Your task to perform on an android device: Open network settings Image 0: 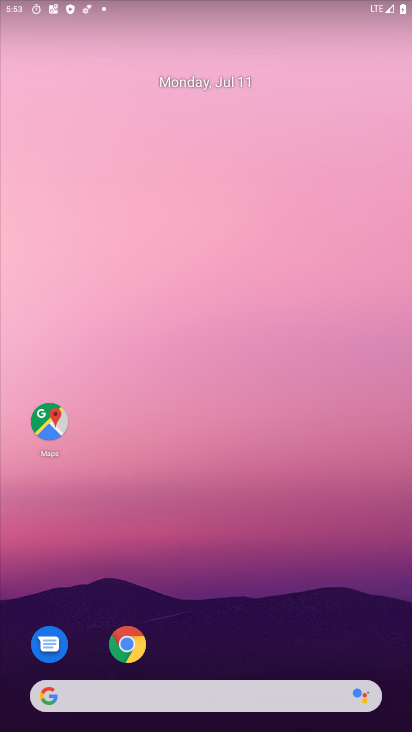
Step 0: drag from (219, 644) to (315, 1)
Your task to perform on an android device: Open network settings Image 1: 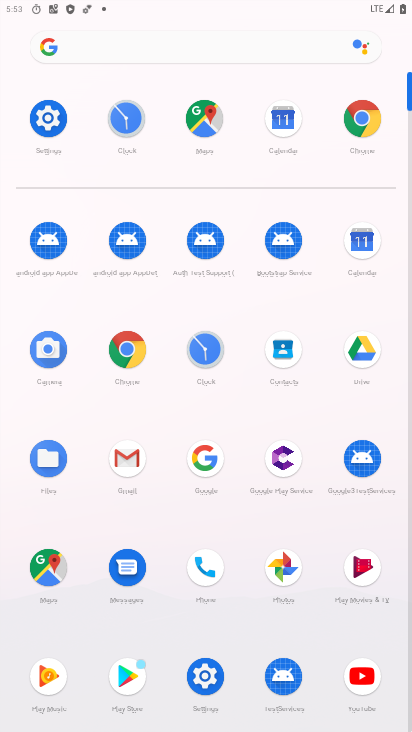
Step 1: click (41, 134)
Your task to perform on an android device: Open network settings Image 2: 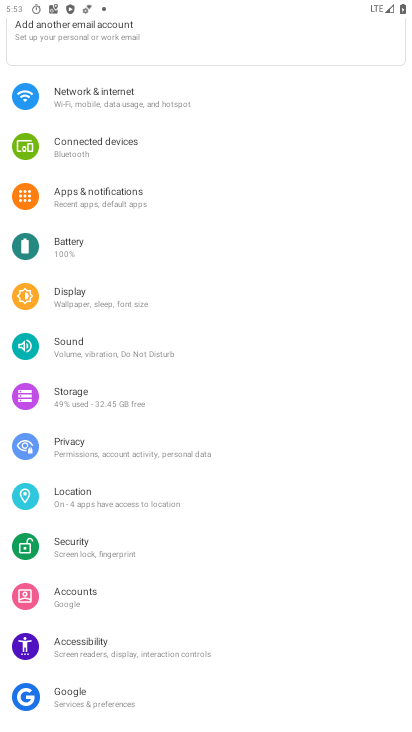
Step 2: click (104, 92)
Your task to perform on an android device: Open network settings Image 3: 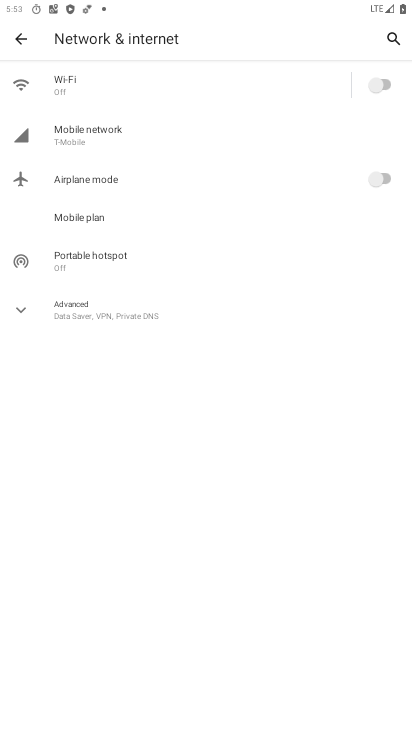
Step 3: task complete